Your task to perform on an android device: Go to settings Image 0: 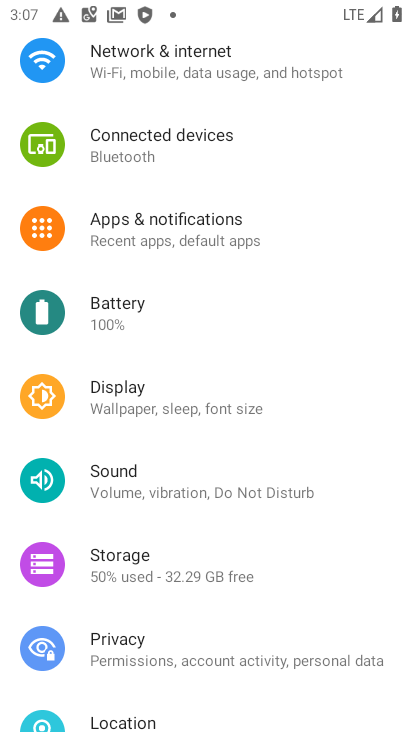
Step 0: task complete